Your task to perform on an android device: Open Amazon Image 0: 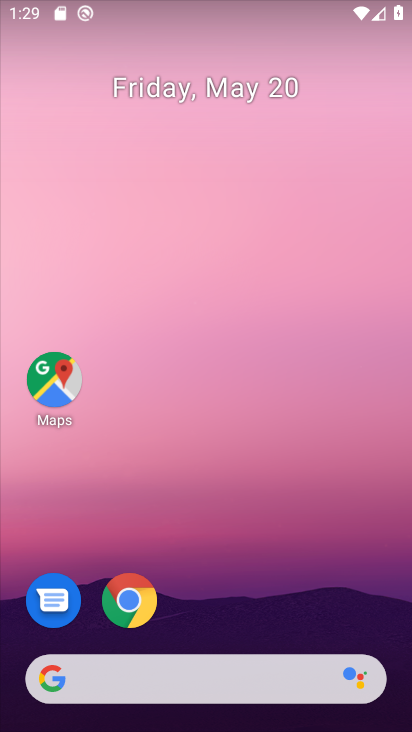
Step 0: click (138, 603)
Your task to perform on an android device: Open Amazon Image 1: 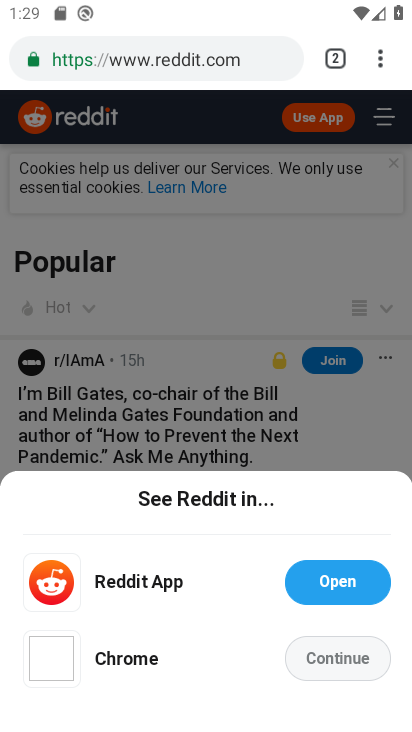
Step 1: click (323, 58)
Your task to perform on an android device: Open Amazon Image 2: 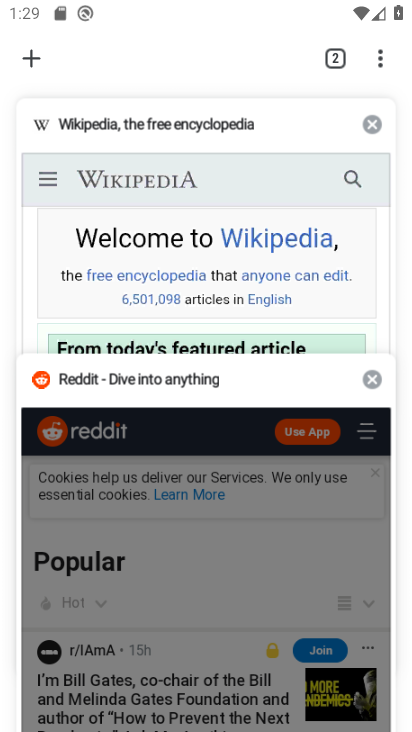
Step 2: click (36, 62)
Your task to perform on an android device: Open Amazon Image 3: 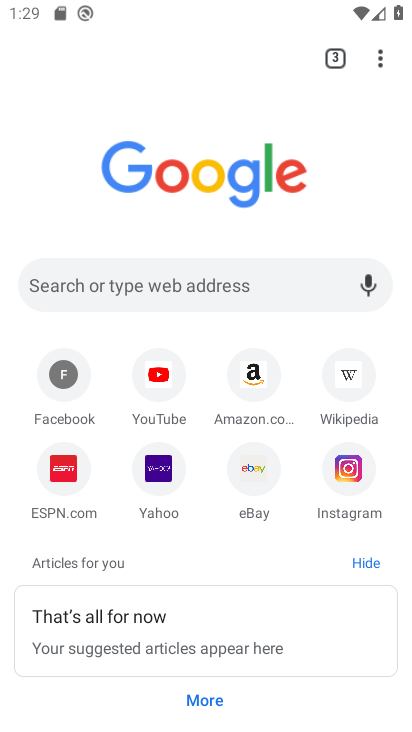
Step 3: click (245, 386)
Your task to perform on an android device: Open Amazon Image 4: 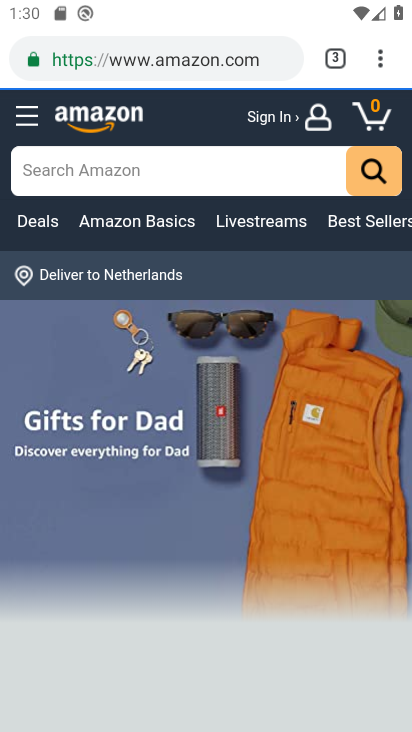
Step 4: task complete